Your task to perform on an android device: Search for vegetarian restaurants on Maps Image 0: 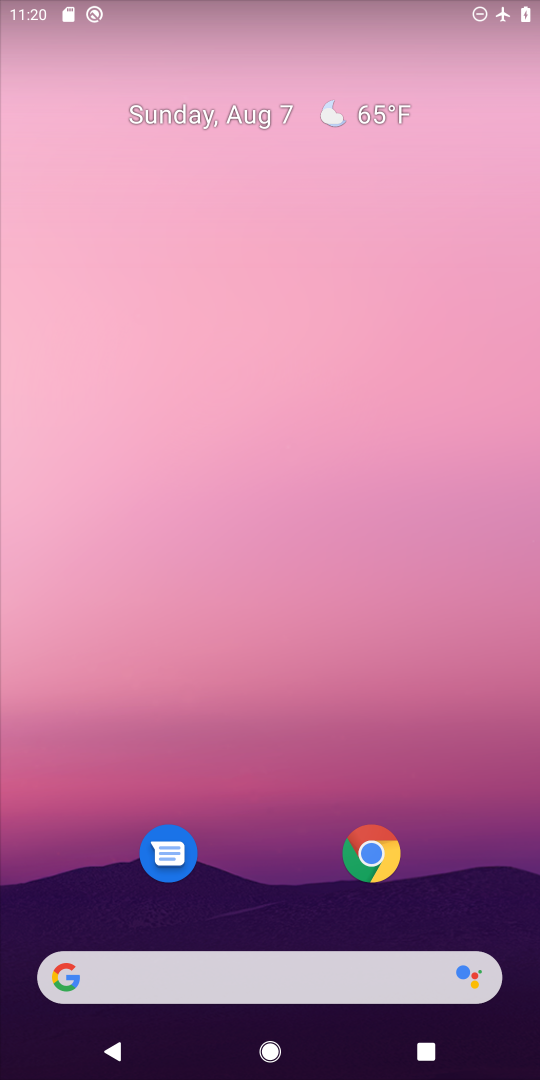
Step 0: drag from (201, 930) to (41, 560)
Your task to perform on an android device: Search for vegetarian restaurants on Maps Image 1: 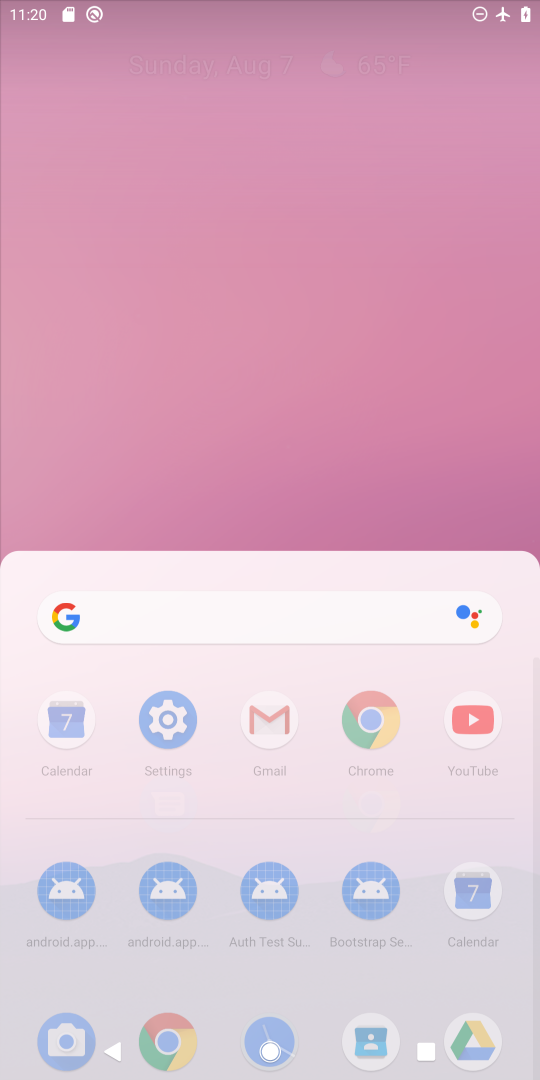
Step 1: drag from (226, 948) to (222, 60)
Your task to perform on an android device: Search for vegetarian restaurants on Maps Image 2: 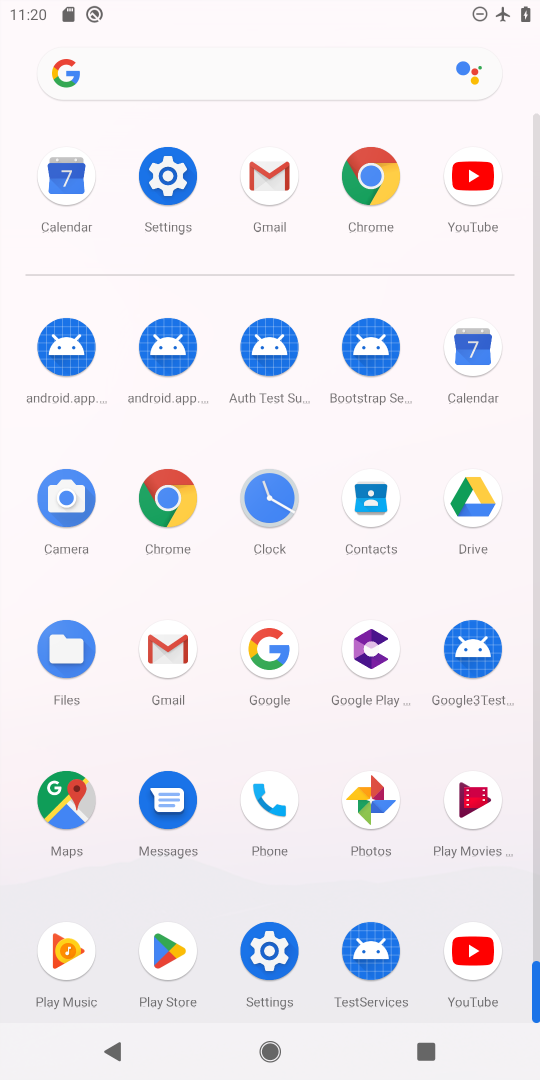
Step 2: click (73, 786)
Your task to perform on an android device: Search for vegetarian restaurants on Maps Image 3: 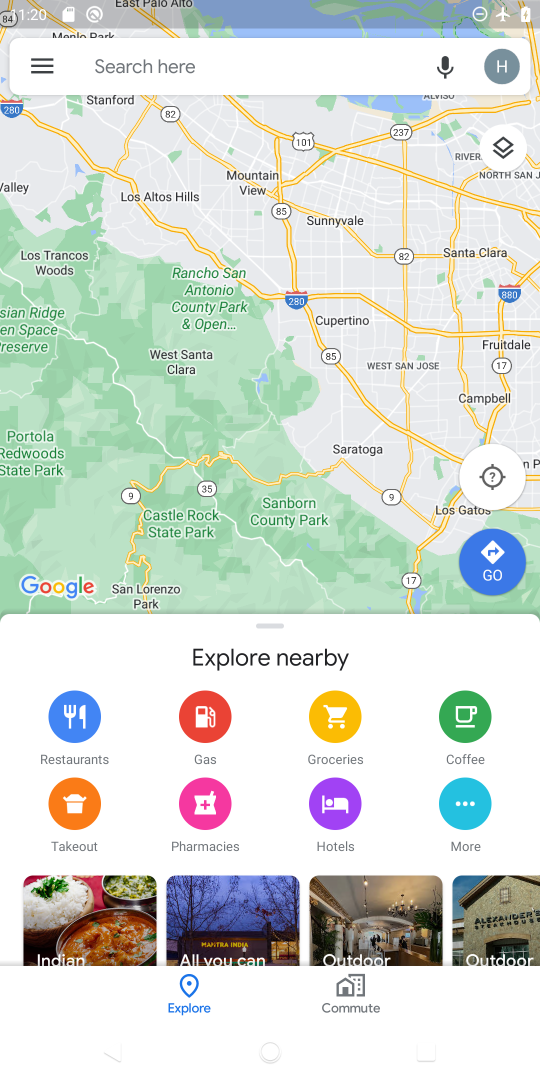
Step 3: click (246, 51)
Your task to perform on an android device: Search for vegetarian restaurants on Maps Image 4: 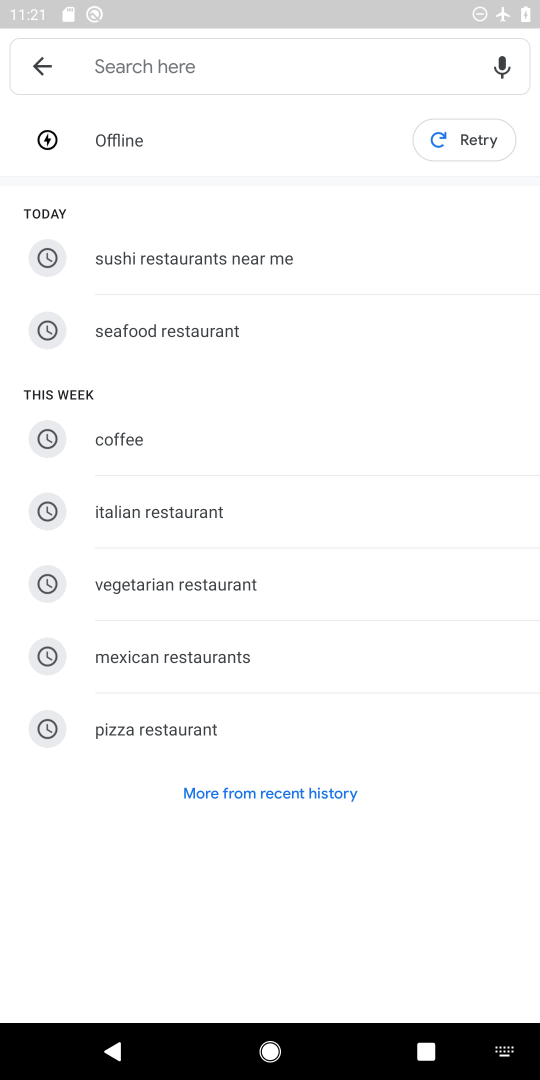
Step 4: click (210, 603)
Your task to perform on an android device: Search for vegetarian restaurants on Maps Image 5: 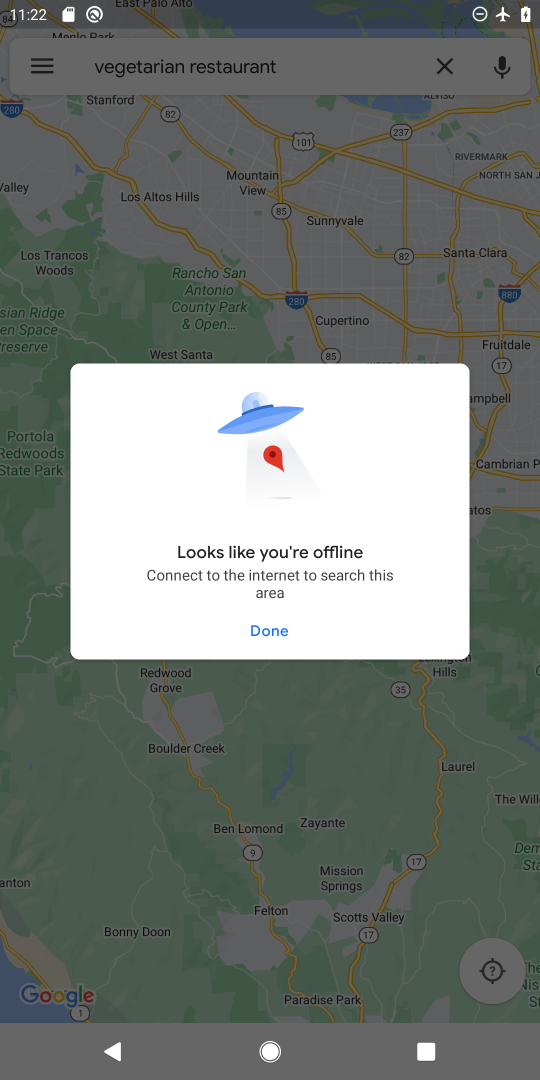
Step 5: task complete